Your task to perform on an android device: Open the map Image 0: 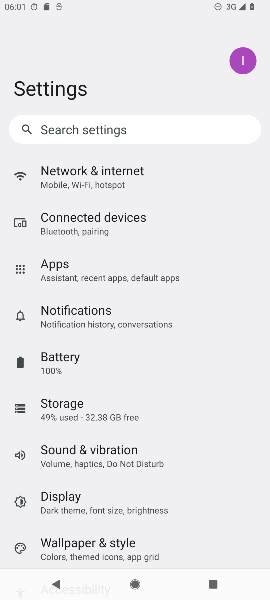
Step 0: press home button
Your task to perform on an android device: Open the map Image 1: 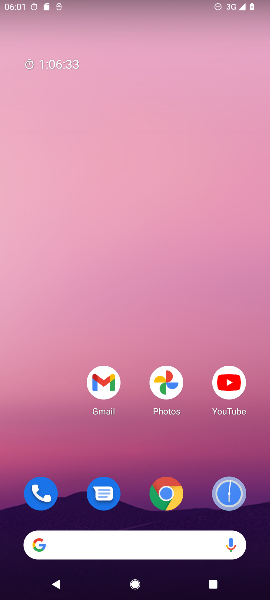
Step 1: drag from (53, 446) to (50, 176)
Your task to perform on an android device: Open the map Image 2: 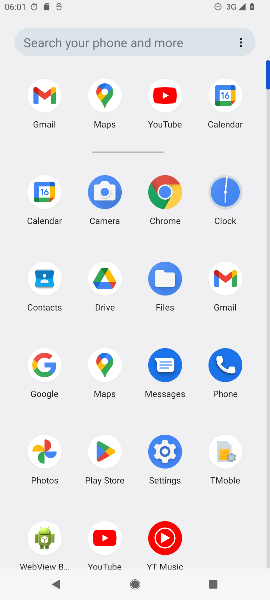
Step 2: click (106, 365)
Your task to perform on an android device: Open the map Image 3: 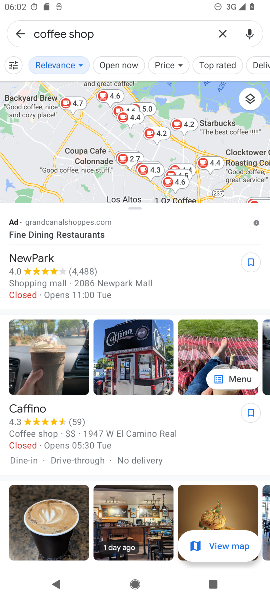
Step 3: task complete